Your task to perform on an android device: open app "PUBG MOBILE" (install if not already installed) Image 0: 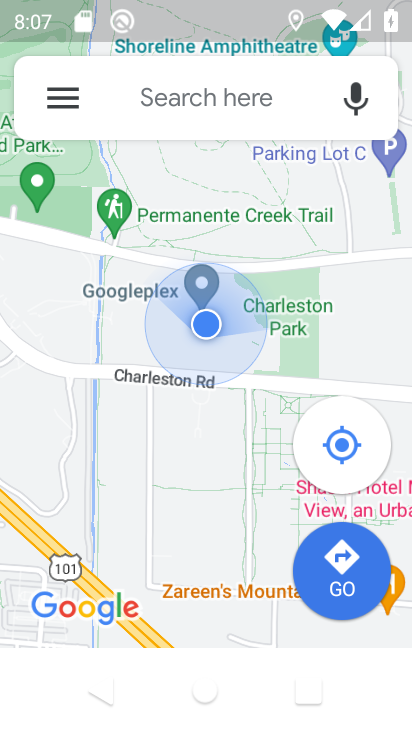
Step 0: press home button
Your task to perform on an android device: open app "PUBG MOBILE" (install if not already installed) Image 1: 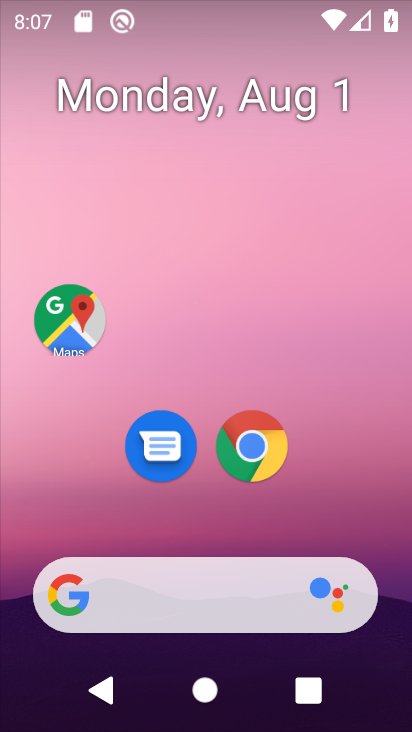
Step 1: drag from (184, 513) to (206, 125)
Your task to perform on an android device: open app "PUBG MOBILE" (install if not already installed) Image 2: 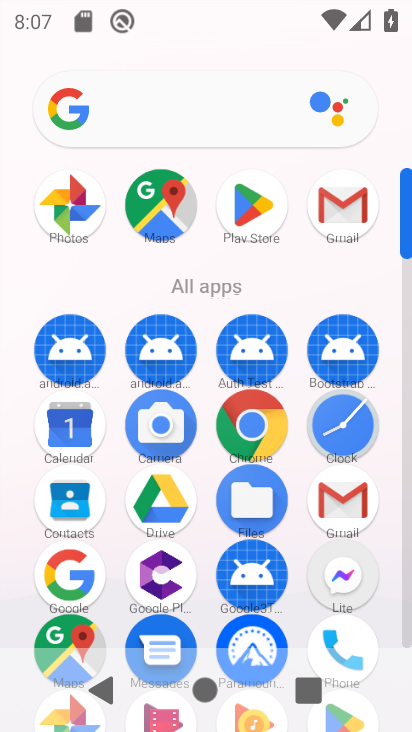
Step 2: click (242, 223)
Your task to perform on an android device: open app "PUBG MOBILE" (install if not already installed) Image 3: 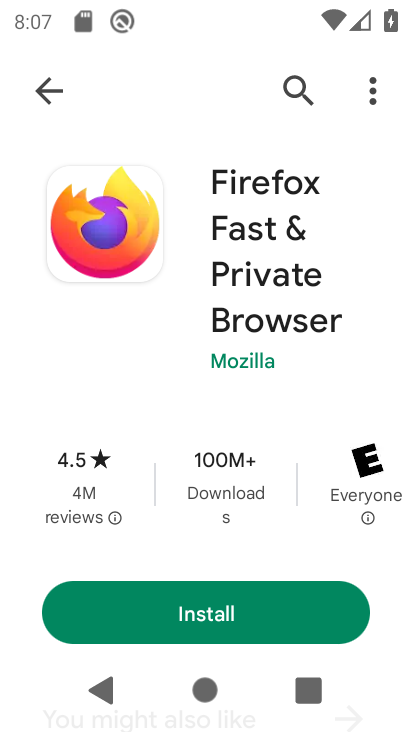
Step 3: click (303, 73)
Your task to perform on an android device: open app "PUBG MOBILE" (install if not already installed) Image 4: 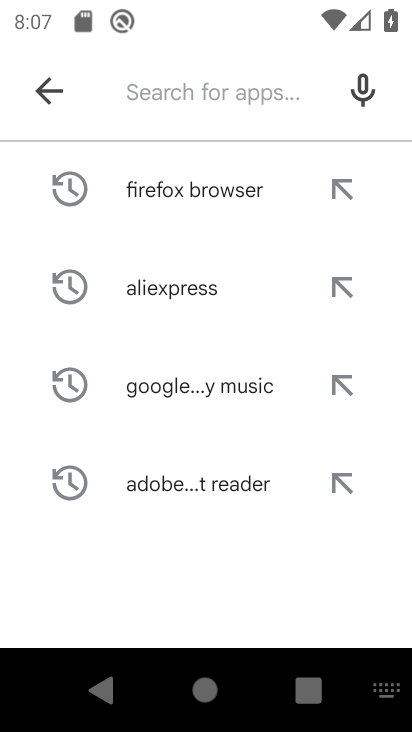
Step 4: type "PUBG MOBILE"
Your task to perform on an android device: open app "PUBG MOBILE" (install if not already installed) Image 5: 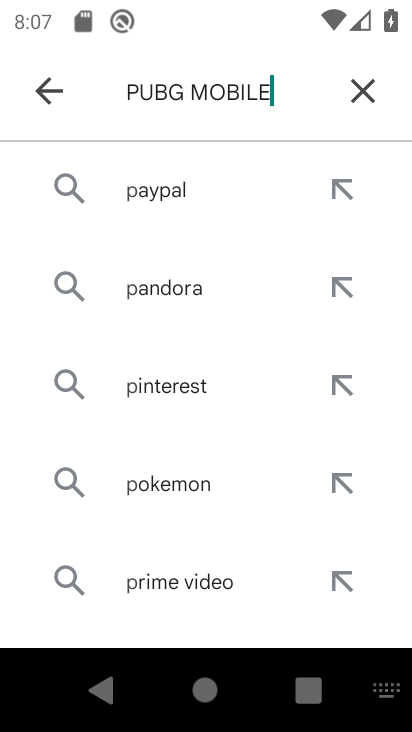
Step 5: type ""
Your task to perform on an android device: open app "PUBG MOBILE" (install if not already installed) Image 6: 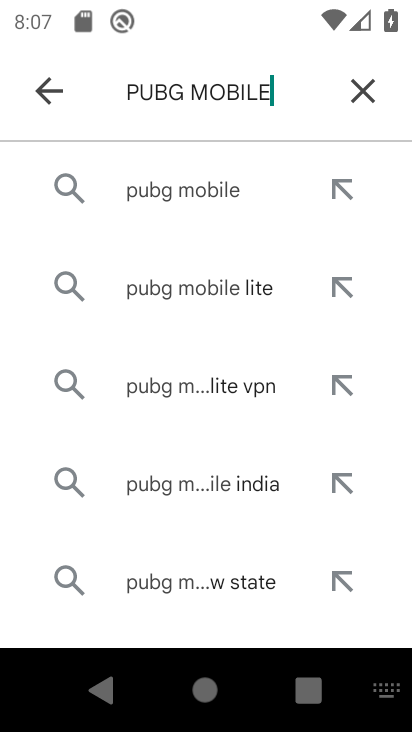
Step 6: click (242, 183)
Your task to perform on an android device: open app "PUBG MOBILE" (install if not already installed) Image 7: 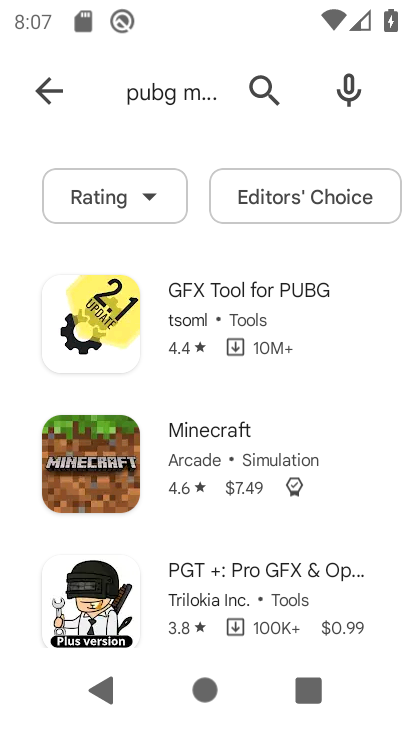
Step 7: task complete